Your task to perform on an android device: Go to accessibility settings Image 0: 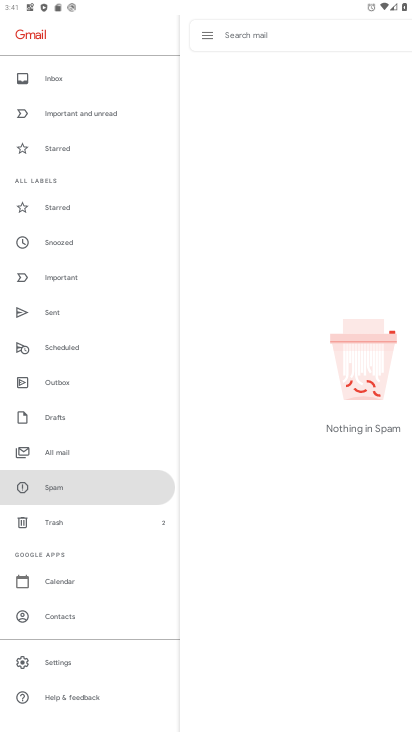
Step 0: press home button
Your task to perform on an android device: Go to accessibility settings Image 1: 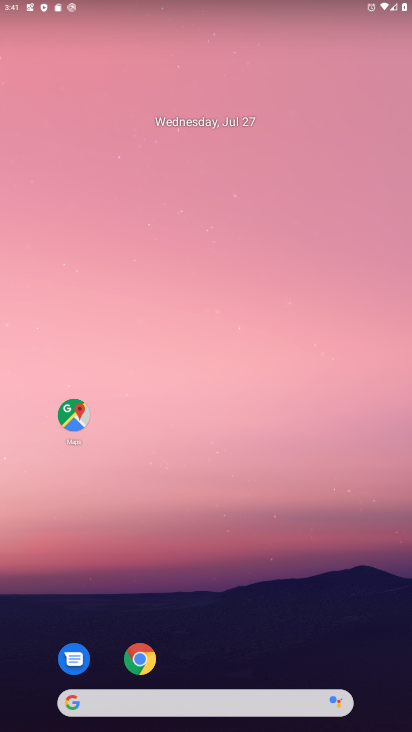
Step 1: drag from (320, 587) to (268, 28)
Your task to perform on an android device: Go to accessibility settings Image 2: 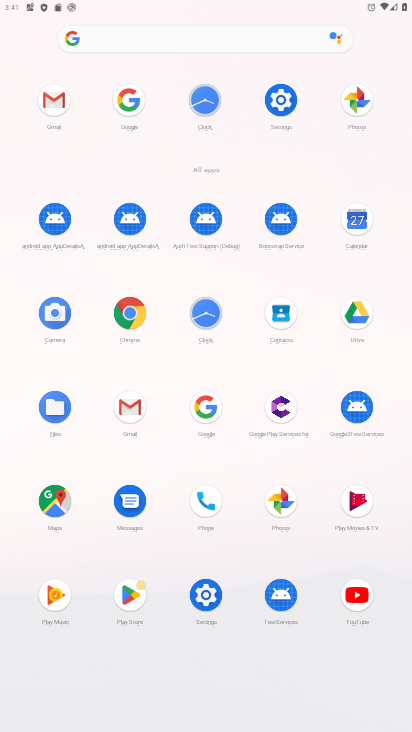
Step 2: click (203, 599)
Your task to perform on an android device: Go to accessibility settings Image 3: 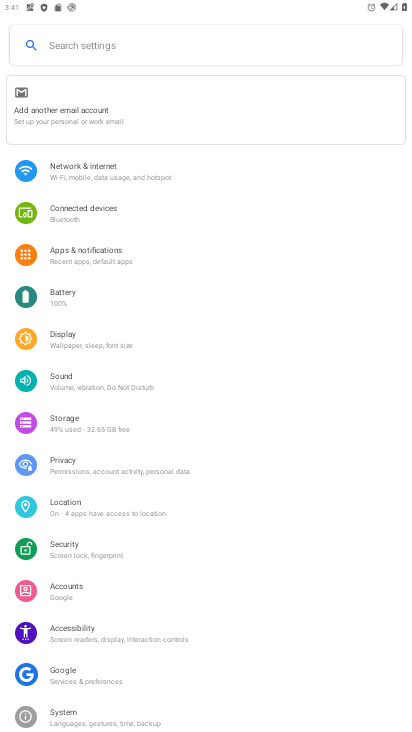
Step 3: click (94, 635)
Your task to perform on an android device: Go to accessibility settings Image 4: 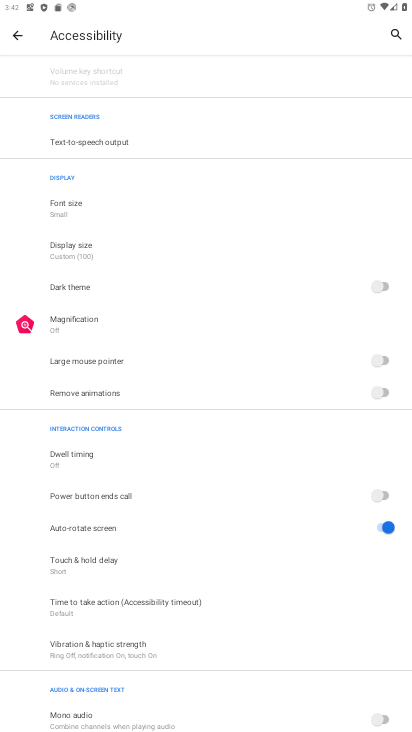
Step 4: task complete